Your task to perform on an android device: Find coffee shops on Maps Image 0: 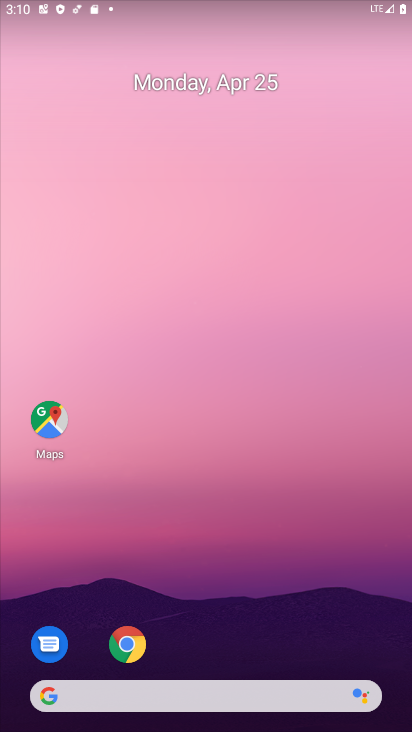
Step 0: click (48, 421)
Your task to perform on an android device: Find coffee shops on Maps Image 1: 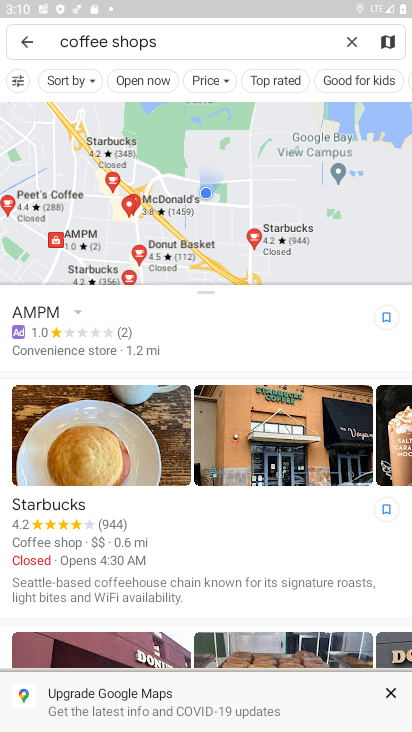
Step 1: task complete